Your task to perform on an android device: turn off location Image 0: 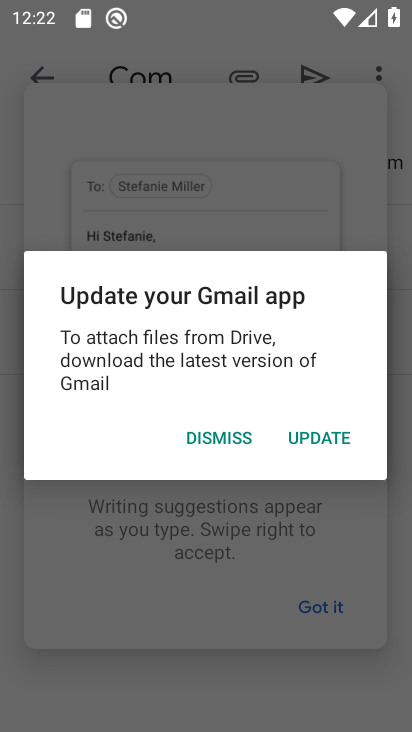
Step 0: press back button
Your task to perform on an android device: turn off location Image 1: 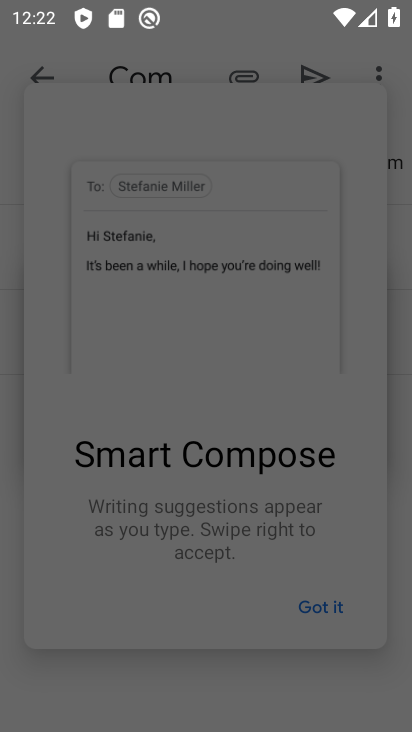
Step 1: press back button
Your task to perform on an android device: turn off location Image 2: 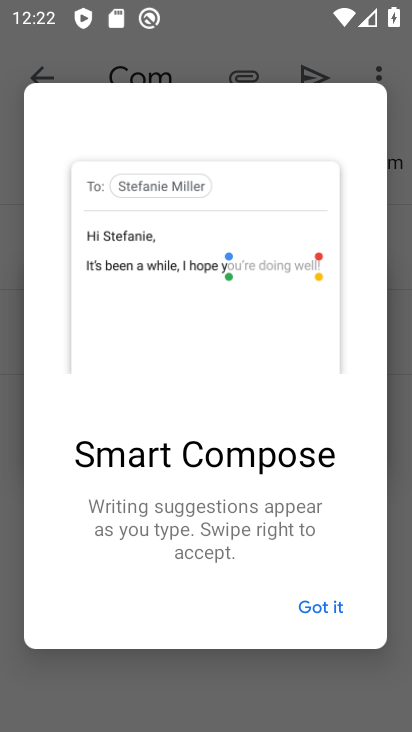
Step 2: press home button
Your task to perform on an android device: turn off location Image 3: 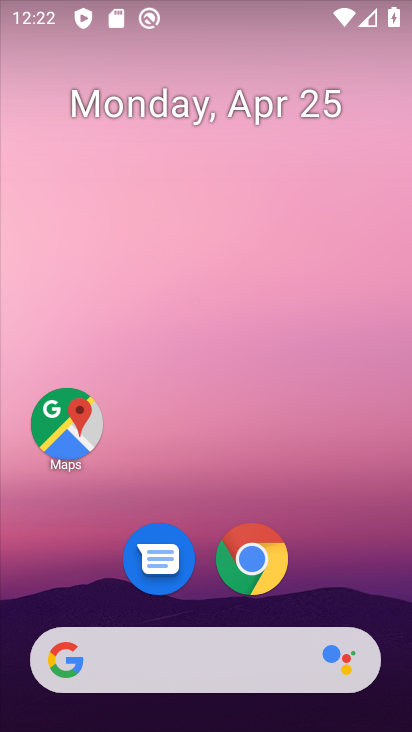
Step 3: drag from (209, 539) to (283, 131)
Your task to perform on an android device: turn off location Image 4: 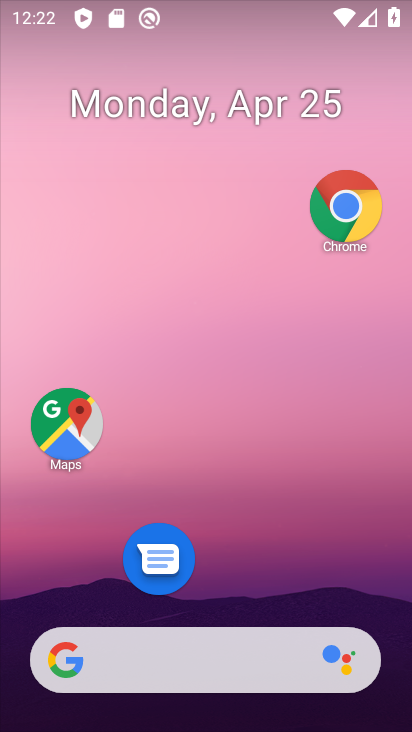
Step 4: drag from (98, 565) to (232, 104)
Your task to perform on an android device: turn off location Image 5: 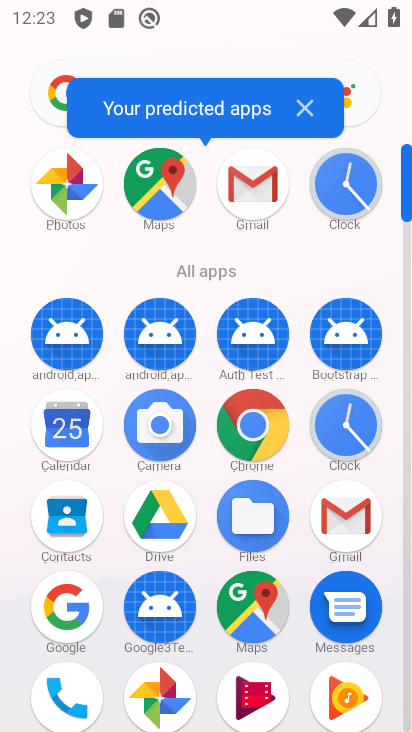
Step 5: drag from (170, 615) to (301, 182)
Your task to perform on an android device: turn off location Image 6: 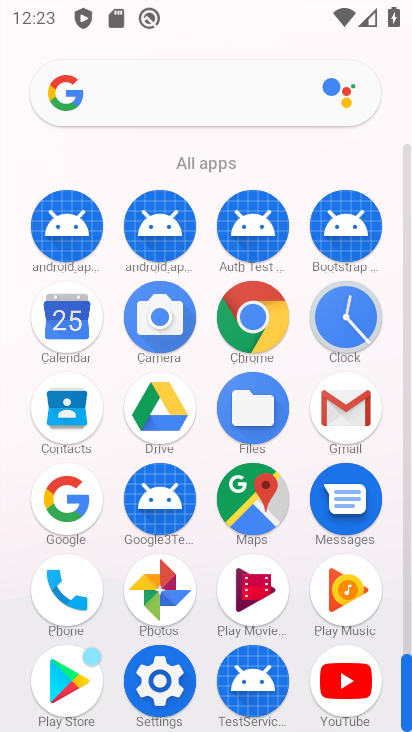
Step 6: click (154, 681)
Your task to perform on an android device: turn off location Image 7: 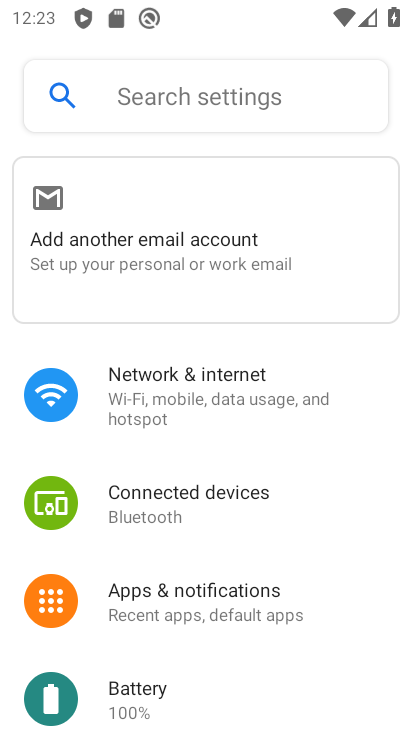
Step 7: drag from (170, 646) to (305, 181)
Your task to perform on an android device: turn off location Image 8: 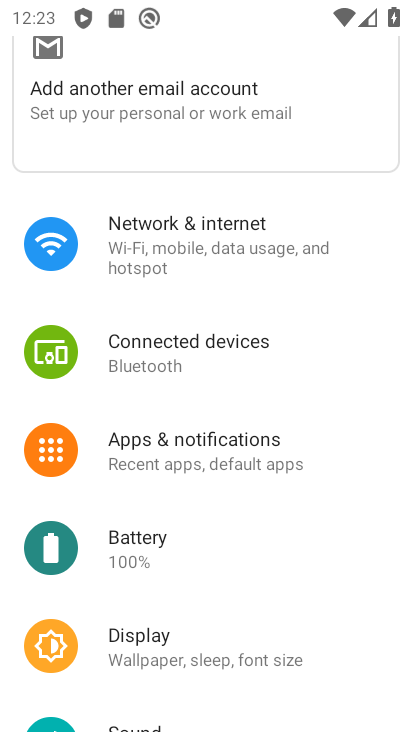
Step 8: drag from (182, 533) to (304, 116)
Your task to perform on an android device: turn off location Image 9: 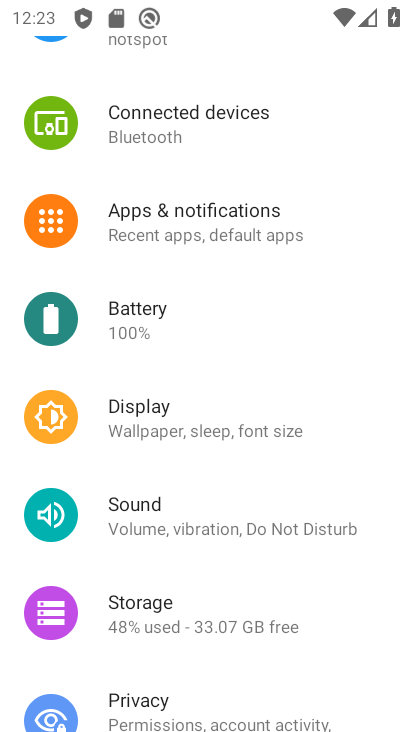
Step 9: drag from (186, 643) to (278, 80)
Your task to perform on an android device: turn off location Image 10: 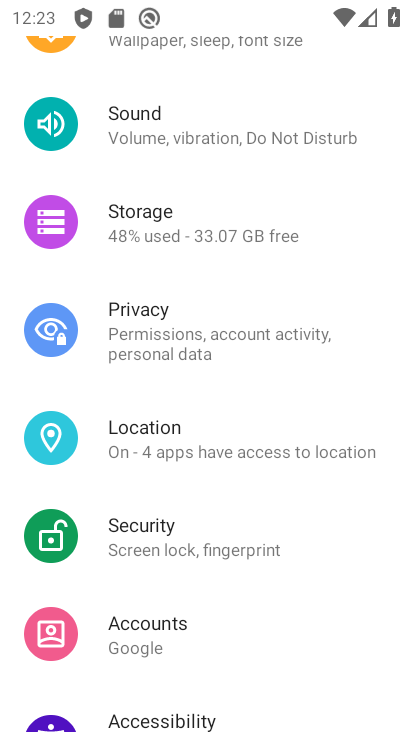
Step 10: click (154, 422)
Your task to perform on an android device: turn off location Image 11: 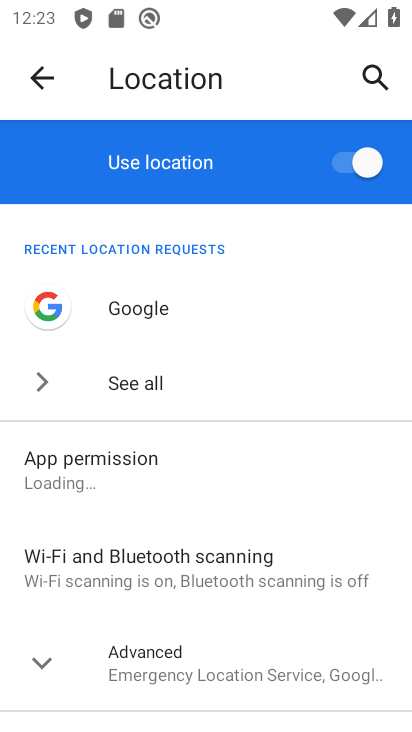
Step 11: click (361, 154)
Your task to perform on an android device: turn off location Image 12: 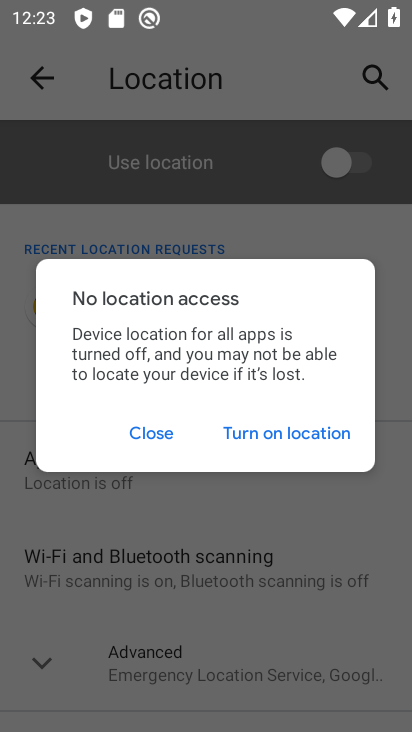
Step 12: click (151, 432)
Your task to perform on an android device: turn off location Image 13: 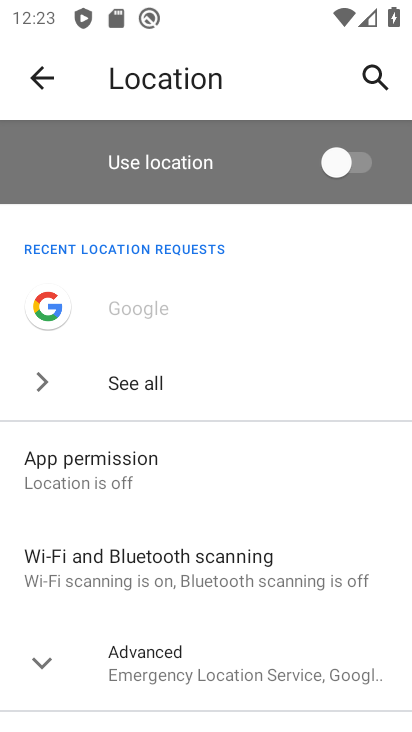
Step 13: task complete